Your task to perform on an android device: turn off javascript in the chrome app Image 0: 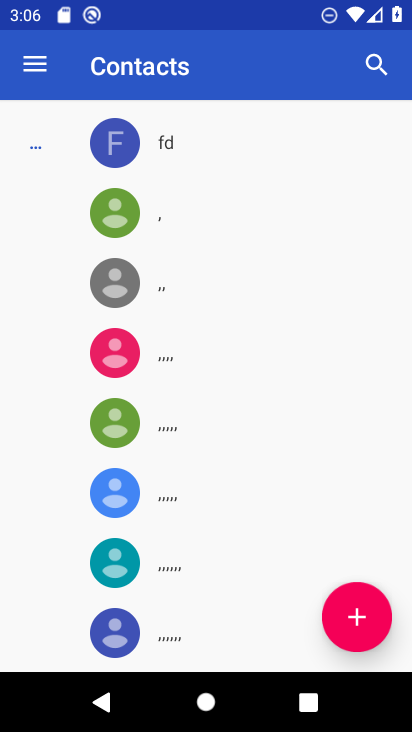
Step 0: press back button
Your task to perform on an android device: turn off javascript in the chrome app Image 1: 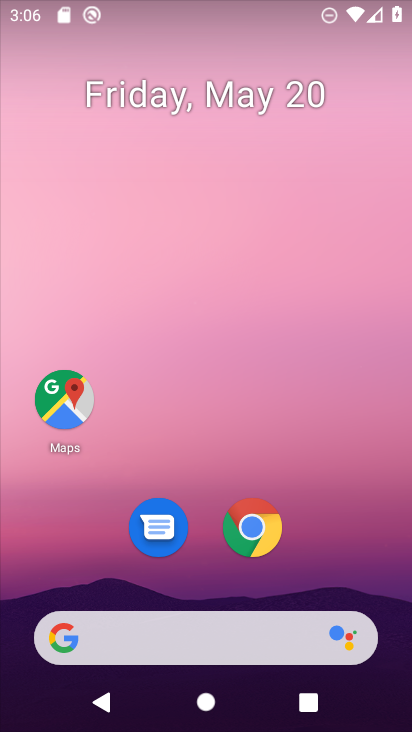
Step 1: click (259, 529)
Your task to perform on an android device: turn off javascript in the chrome app Image 2: 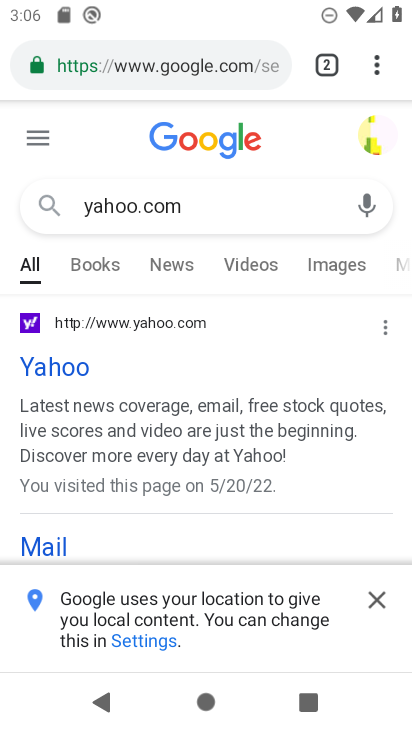
Step 2: drag from (386, 58) to (150, 572)
Your task to perform on an android device: turn off javascript in the chrome app Image 3: 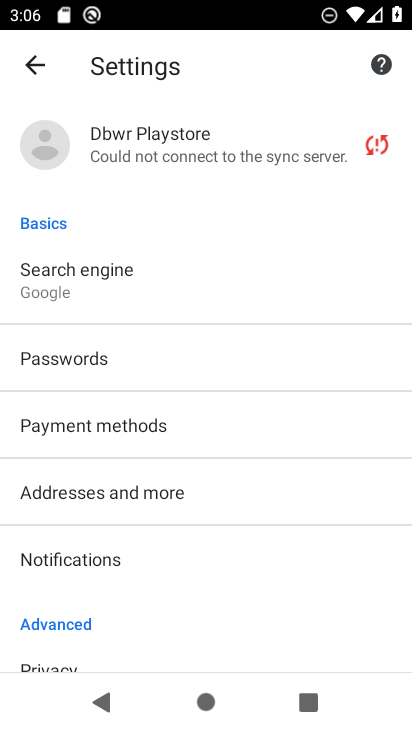
Step 3: drag from (127, 607) to (232, 135)
Your task to perform on an android device: turn off javascript in the chrome app Image 4: 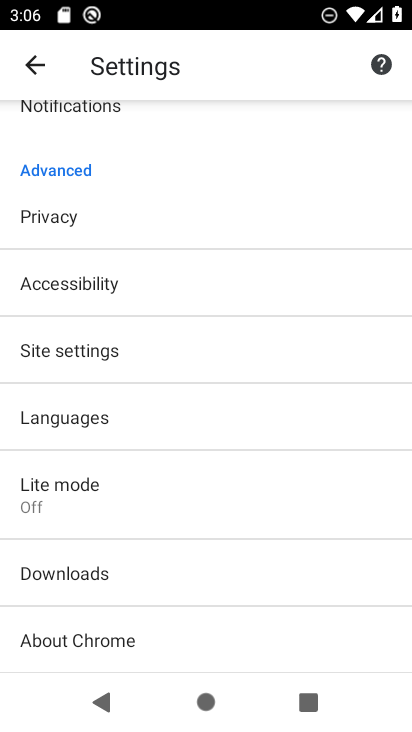
Step 4: click (71, 353)
Your task to perform on an android device: turn off javascript in the chrome app Image 5: 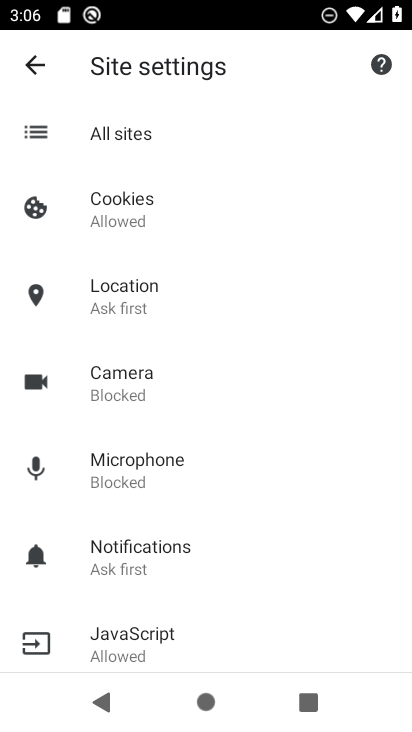
Step 5: click (119, 631)
Your task to perform on an android device: turn off javascript in the chrome app Image 6: 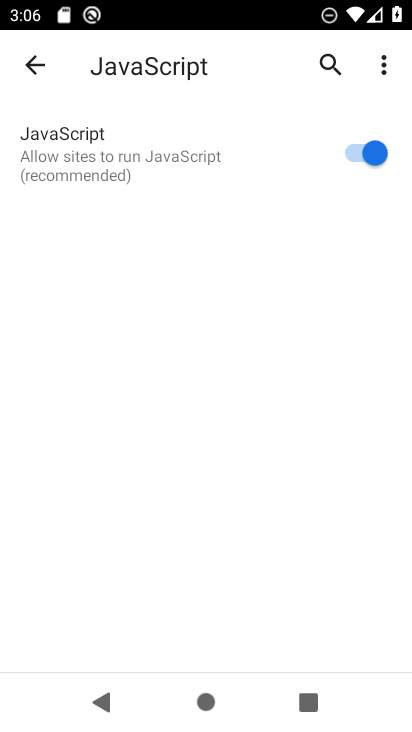
Step 6: click (359, 153)
Your task to perform on an android device: turn off javascript in the chrome app Image 7: 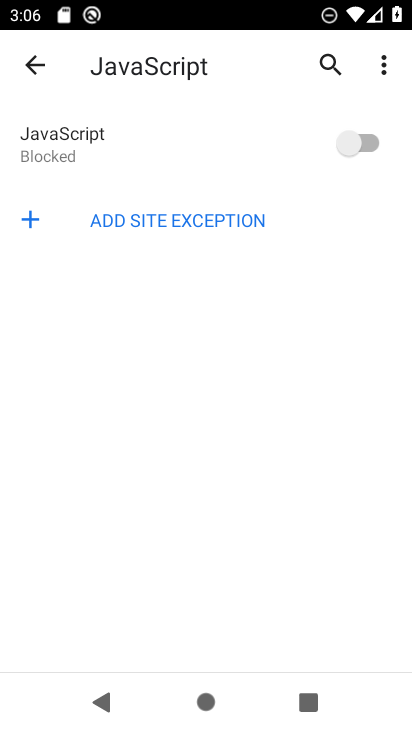
Step 7: task complete